Your task to perform on an android device: turn off notifications settings in the gmail app Image 0: 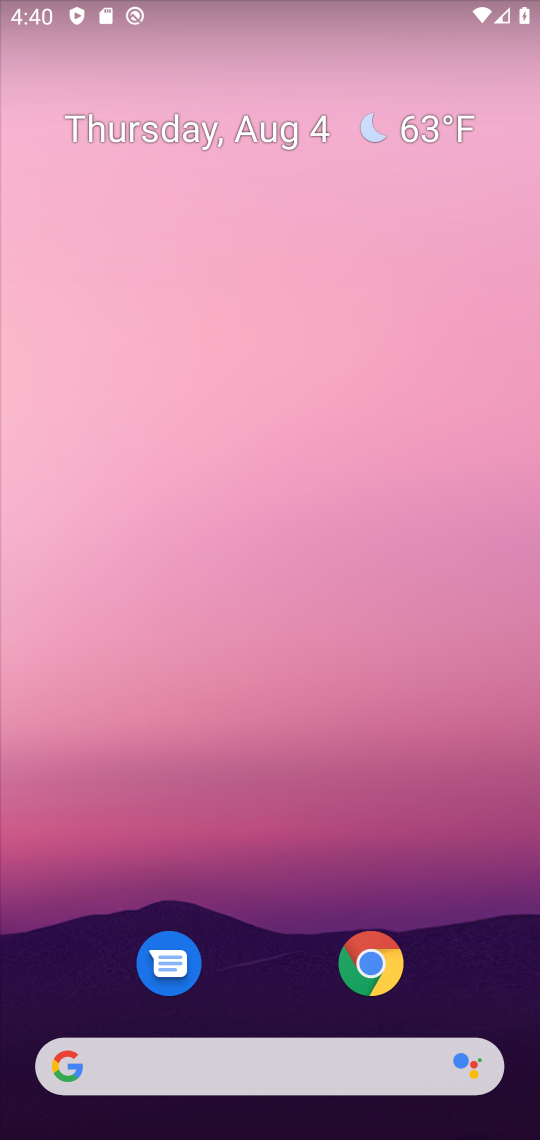
Step 0: drag from (262, 889) to (261, 155)
Your task to perform on an android device: turn off notifications settings in the gmail app Image 1: 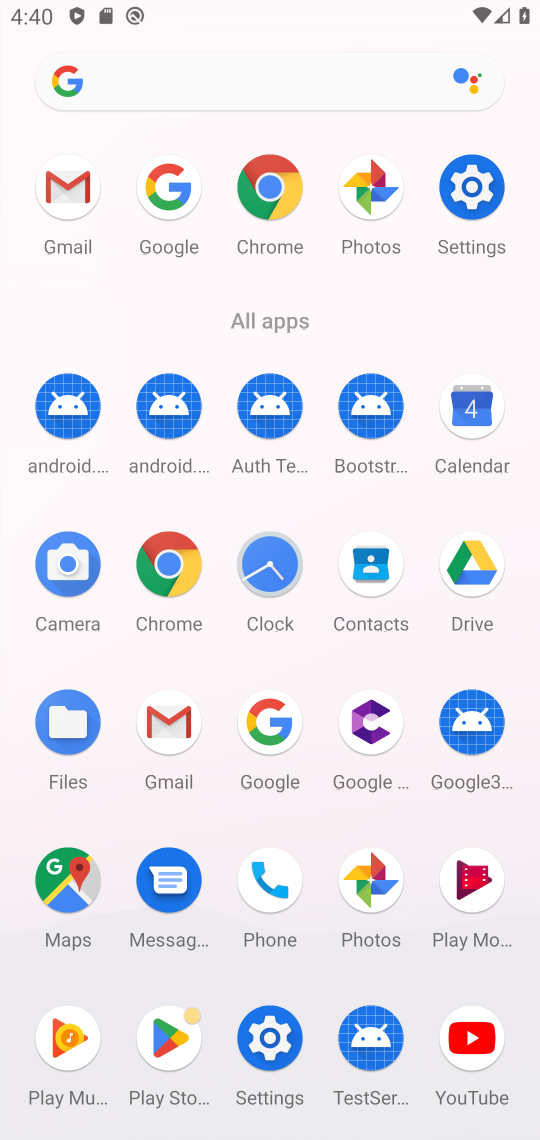
Step 1: click (170, 729)
Your task to perform on an android device: turn off notifications settings in the gmail app Image 2: 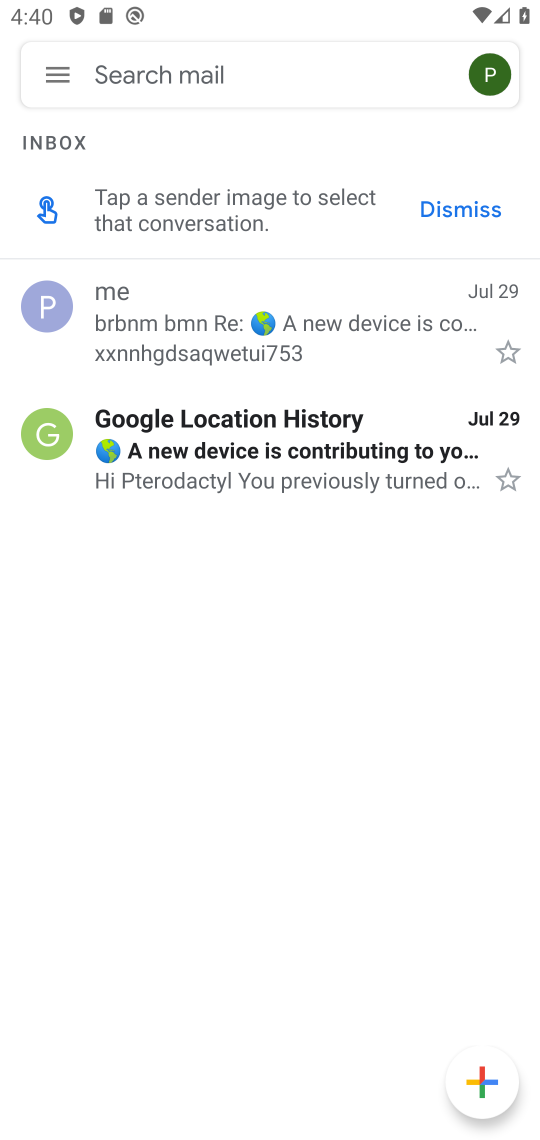
Step 2: click (56, 56)
Your task to perform on an android device: turn off notifications settings in the gmail app Image 3: 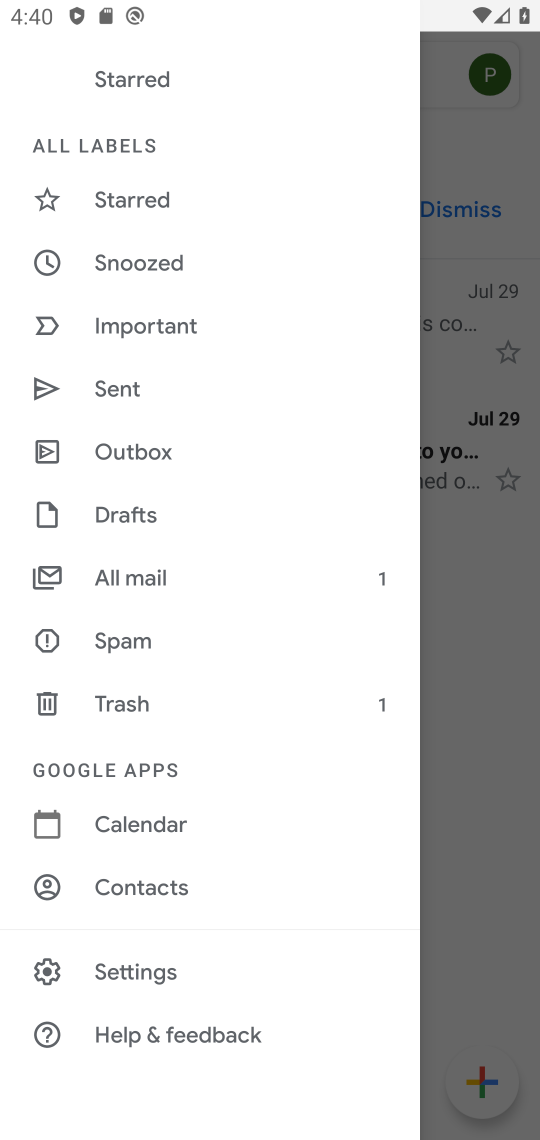
Step 3: click (143, 968)
Your task to perform on an android device: turn off notifications settings in the gmail app Image 4: 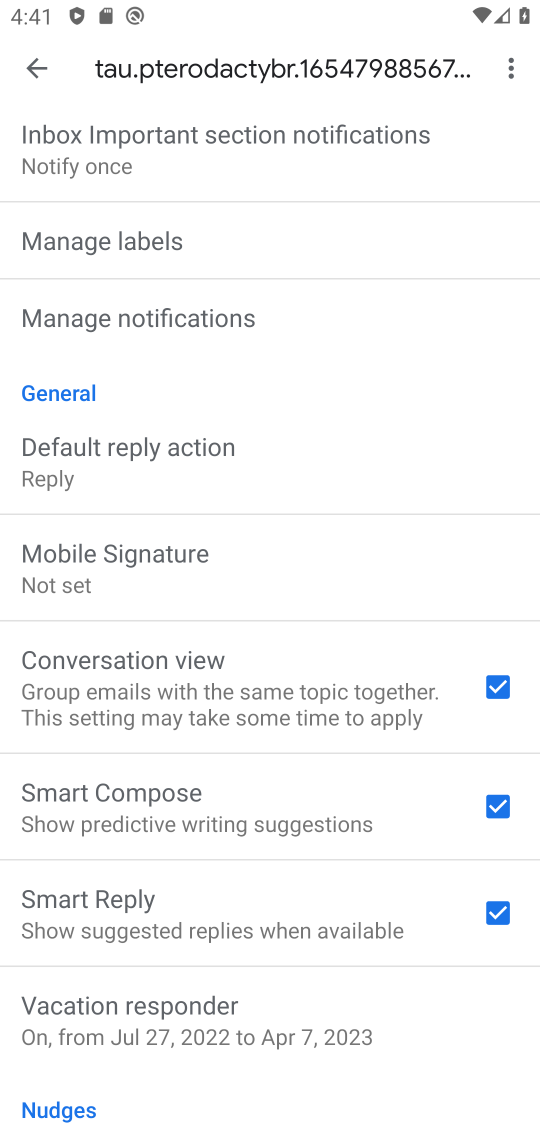
Step 4: click (31, 62)
Your task to perform on an android device: turn off notifications settings in the gmail app Image 5: 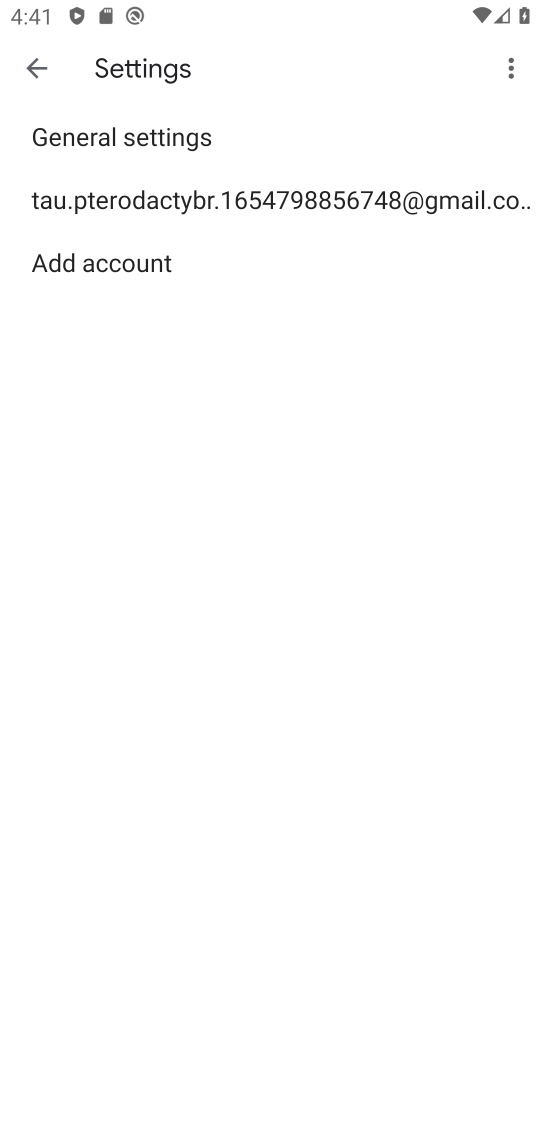
Step 5: click (114, 133)
Your task to perform on an android device: turn off notifications settings in the gmail app Image 6: 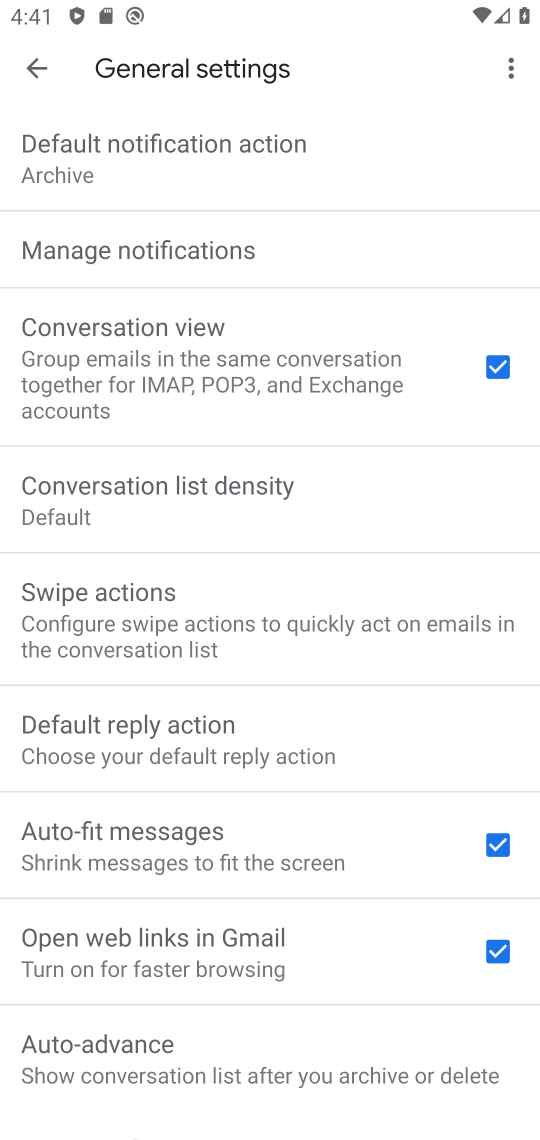
Step 6: click (158, 248)
Your task to perform on an android device: turn off notifications settings in the gmail app Image 7: 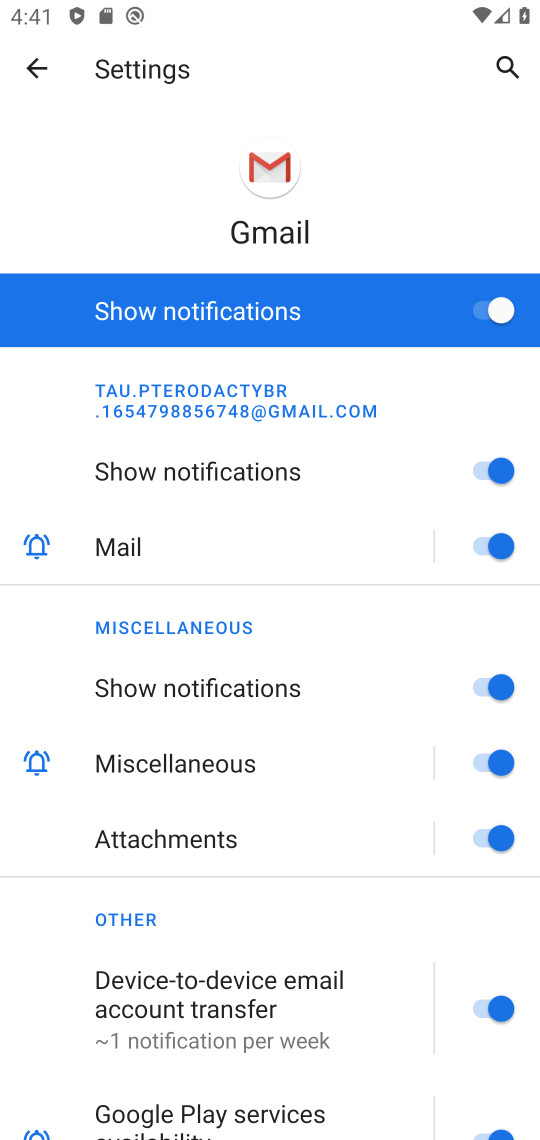
Step 7: click (495, 304)
Your task to perform on an android device: turn off notifications settings in the gmail app Image 8: 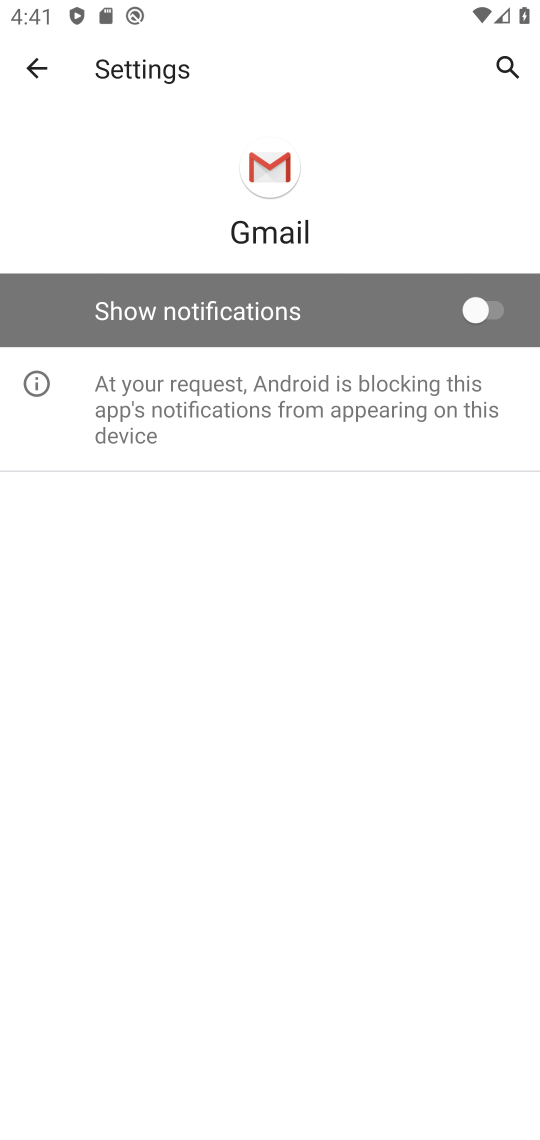
Step 8: task complete